Your task to perform on an android device: What is the recent news? Image 0: 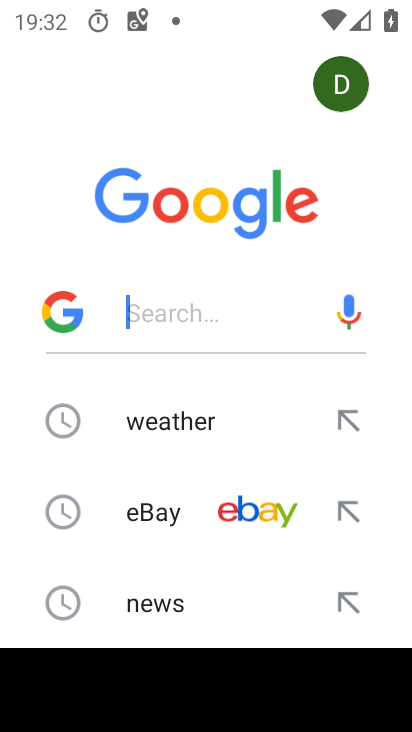
Step 0: press home button
Your task to perform on an android device: What is the recent news? Image 1: 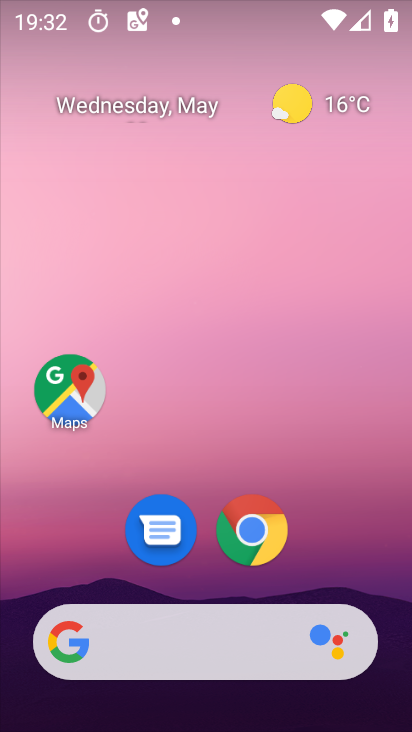
Step 1: drag from (247, 525) to (357, 525)
Your task to perform on an android device: What is the recent news? Image 2: 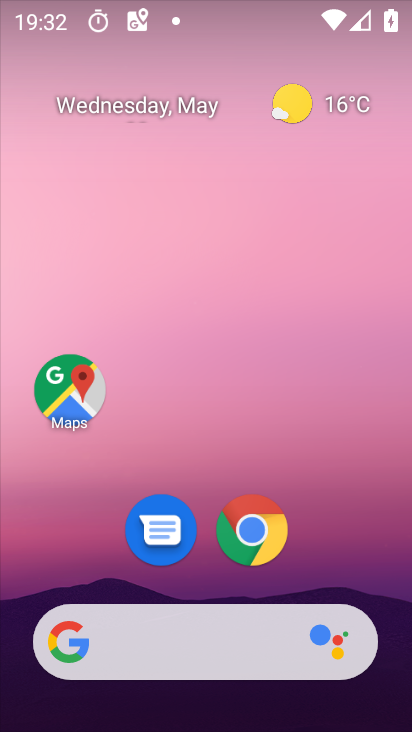
Step 2: click (241, 524)
Your task to perform on an android device: What is the recent news? Image 3: 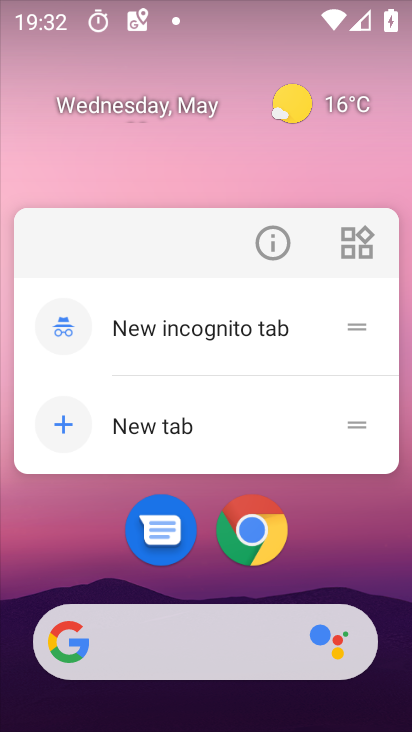
Step 3: click (257, 238)
Your task to perform on an android device: What is the recent news? Image 4: 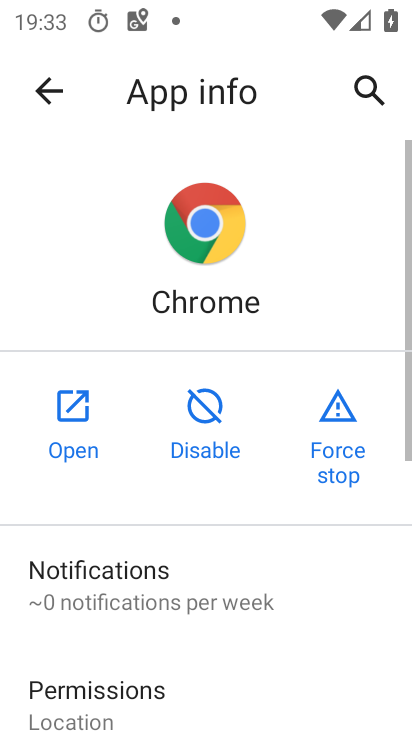
Step 4: click (66, 417)
Your task to perform on an android device: What is the recent news? Image 5: 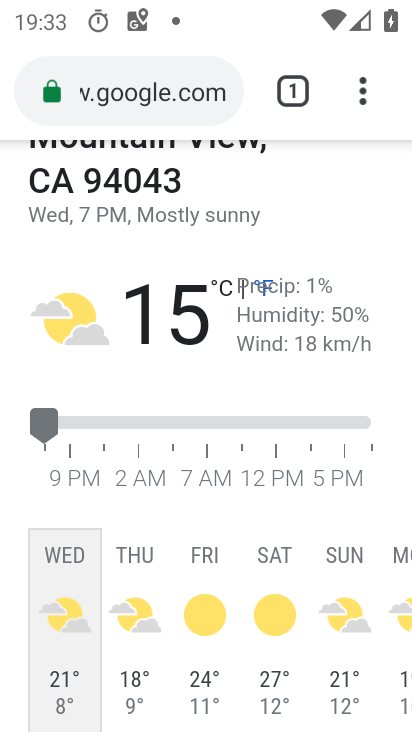
Step 5: click (151, 96)
Your task to perform on an android device: What is the recent news? Image 6: 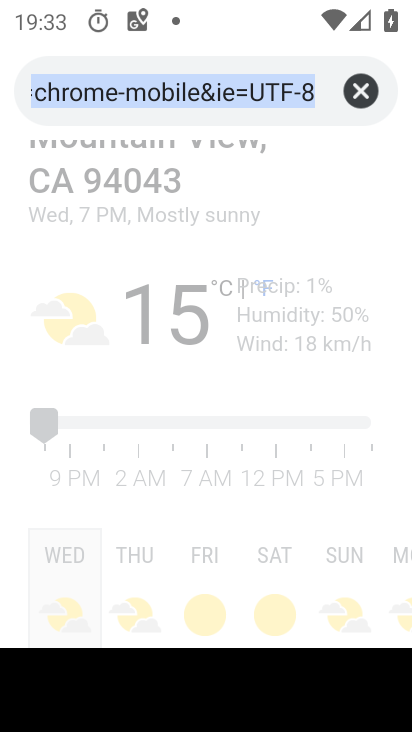
Step 6: type "recent news"
Your task to perform on an android device: What is the recent news? Image 7: 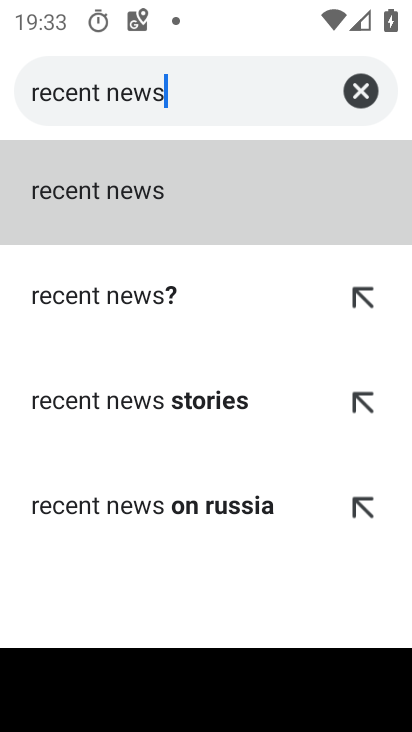
Step 7: click (174, 200)
Your task to perform on an android device: What is the recent news? Image 8: 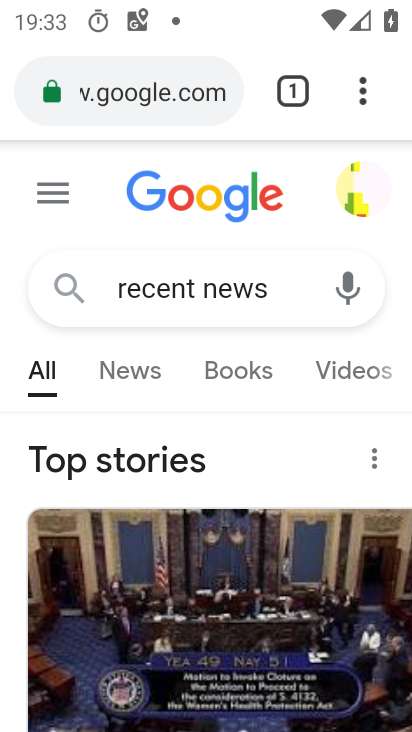
Step 8: task complete